Your task to perform on an android device: Open ESPN.com Image 0: 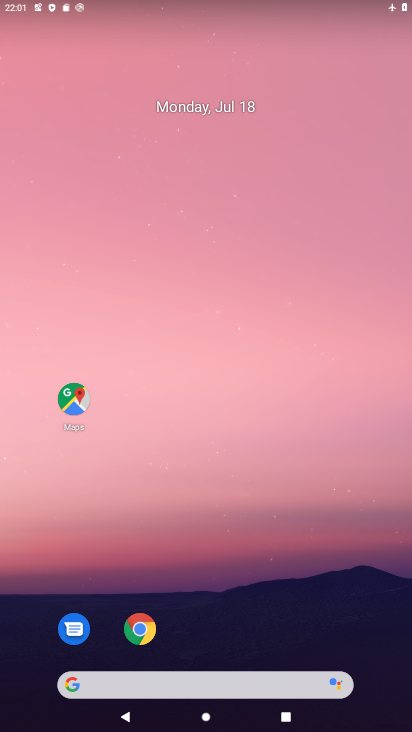
Step 0: drag from (289, 479) to (291, 151)
Your task to perform on an android device: Open ESPN.com Image 1: 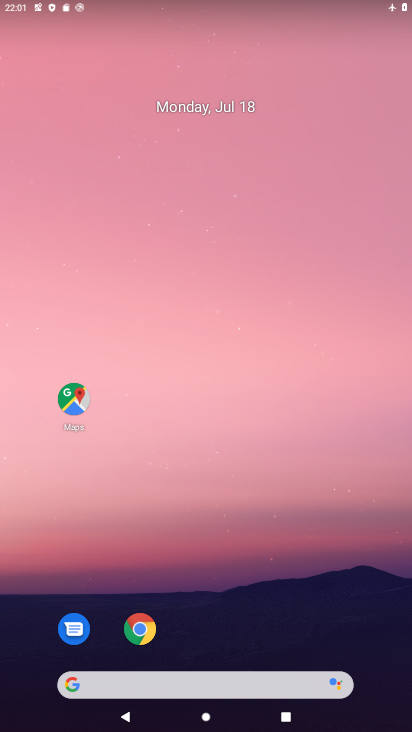
Step 1: drag from (320, 555) to (318, 66)
Your task to perform on an android device: Open ESPN.com Image 2: 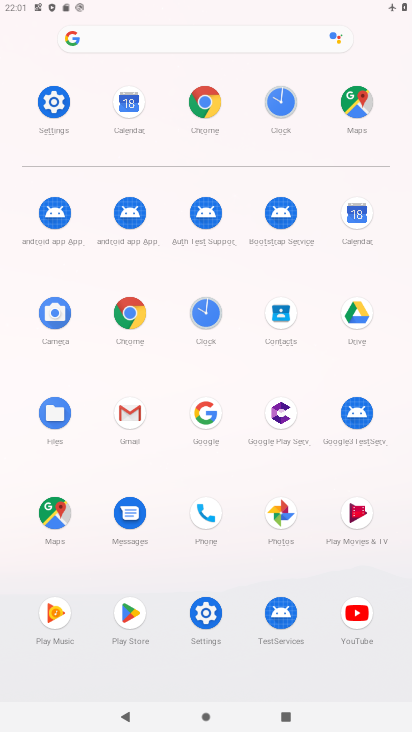
Step 2: click (130, 315)
Your task to perform on an android device: Open ESPN.com Image 3: 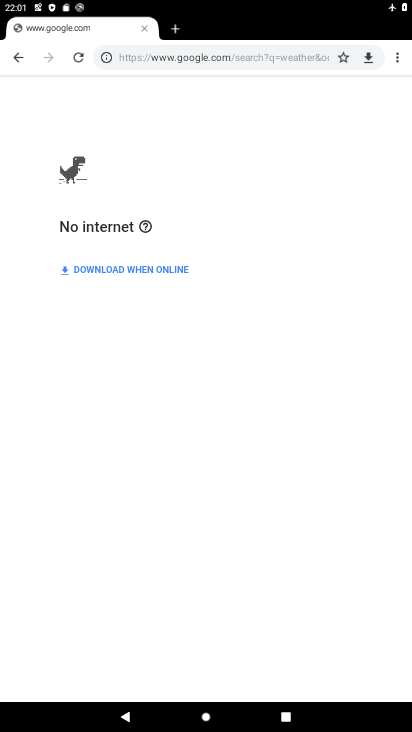
Step 3: click (225, 55)
Your task to perform on an android device: Open ESPN.com Image 4: 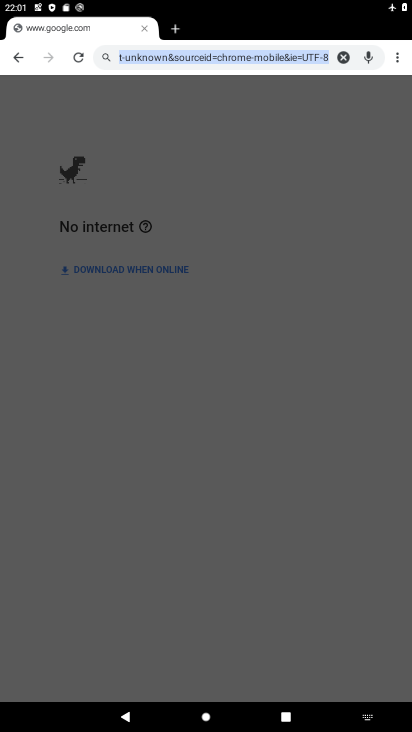
Step 4: type "espn.com"
Your task to perform on an android device: Open ESPN.com Image 5: 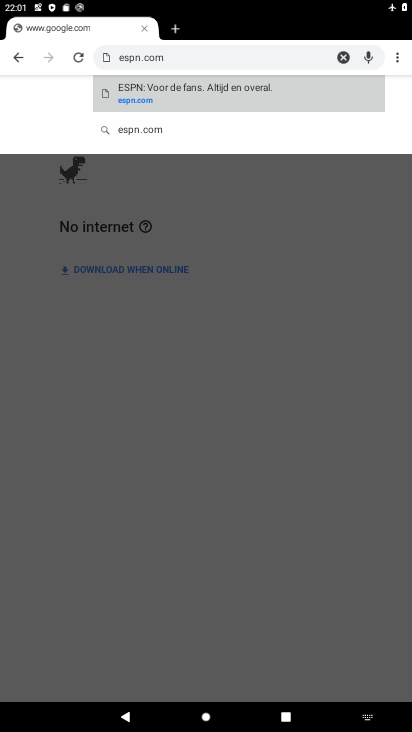
Step 5: click (234, 90)
Your task to perform on an android device: Open ESPN.com Image 6: 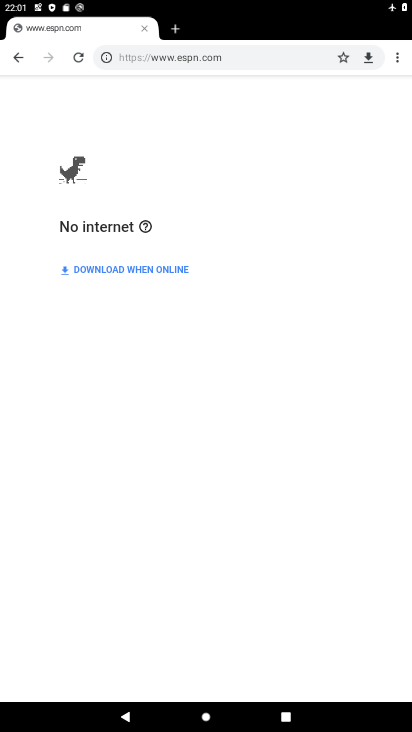
Step 6: task complete